Your task to perform on an android device: When is my next appointment? Image 0: 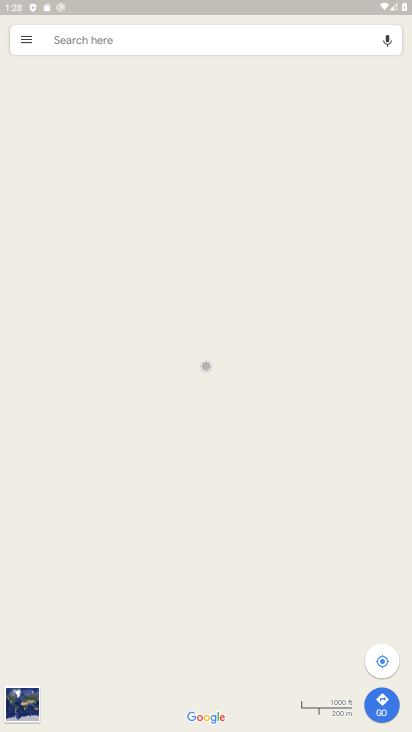
Step 0: press home button
Your task to perform on an android device: When is my next appointment? Image 1: 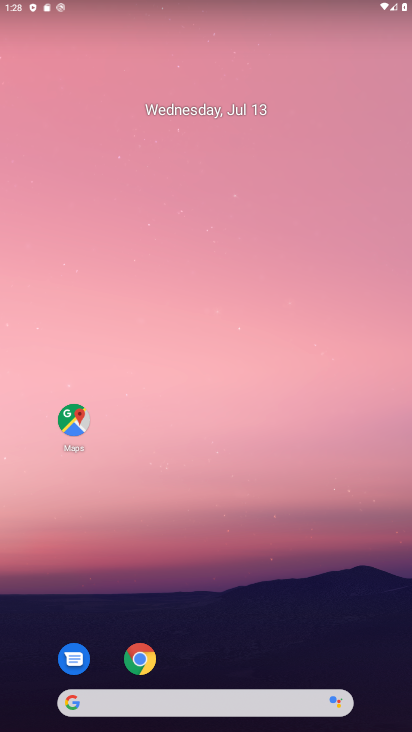
Step 1: drag from (357, 552) to (302, 234)
Your task to perform on an android device: When is my next appointment? Image 2: 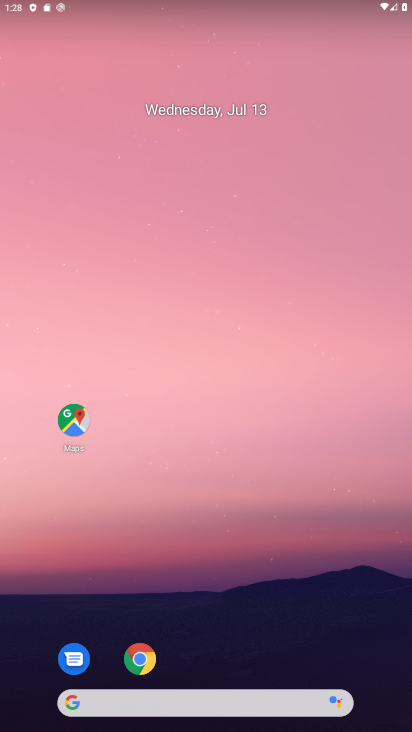
Step 2: drag from (377, 684) to (321, 259)
Your task to perform on an android device: When is my next appointment? Image 3: 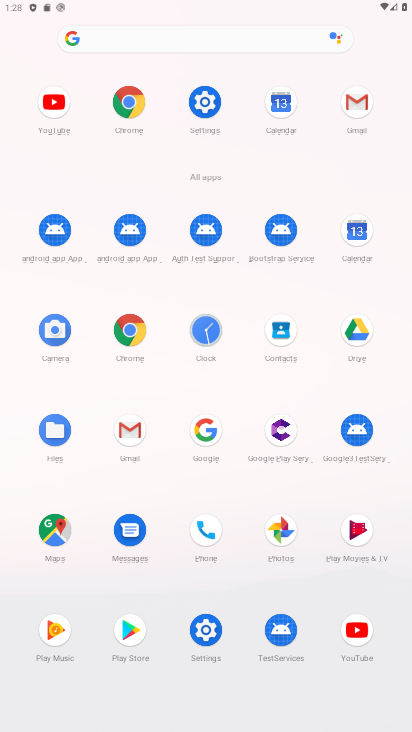
Step 3: click (357, 230)
Your task to perform on an android device: When is my next appointment? Image 4: 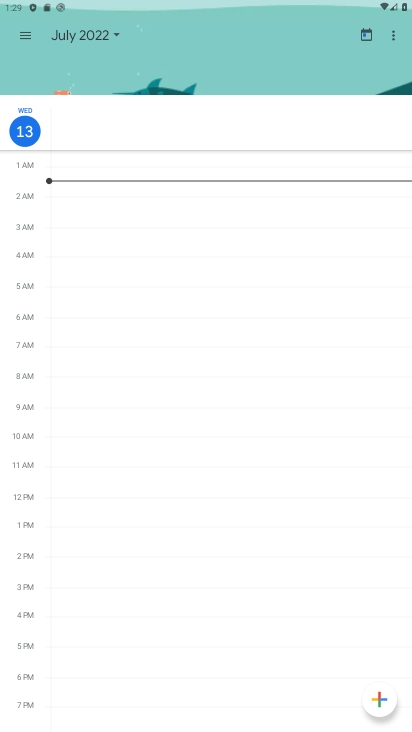
Step 4: click (21, 31)
Your task to perform on an android device: When is my next appointment? Image 5: 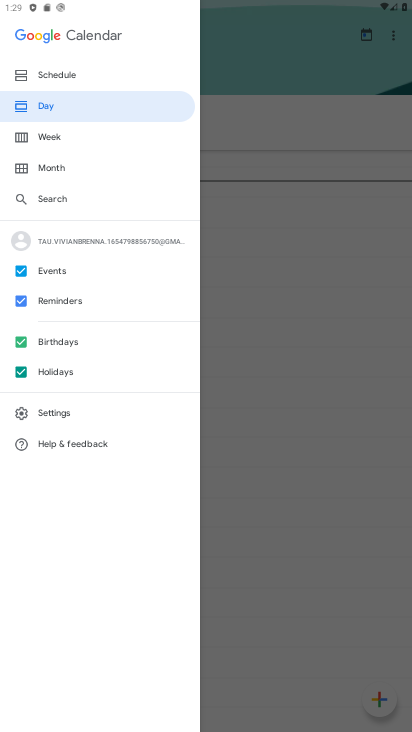
Step 5: click (54, 69)
Your task to perform on an android device: When is my next appointment? Image 6: 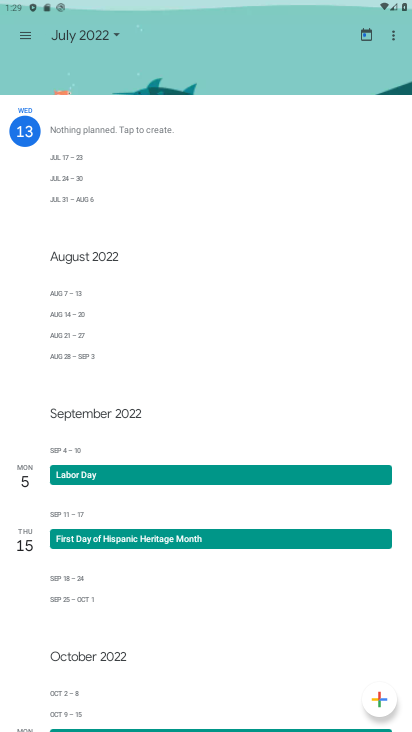
Step 6: task complete